Your task to perform on an android device: turn off notifications settings in the gmail app Image 0: 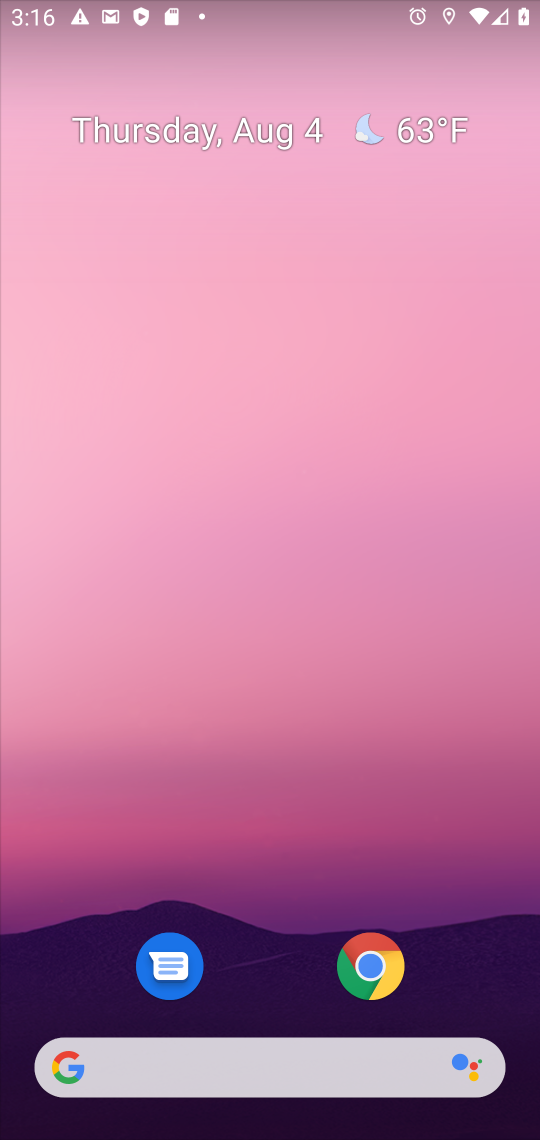
Step 0: drag from (285, 729) to (290, 202)
Your task to perform on an android device: turn off notifications settings in the gmail app Image 1: 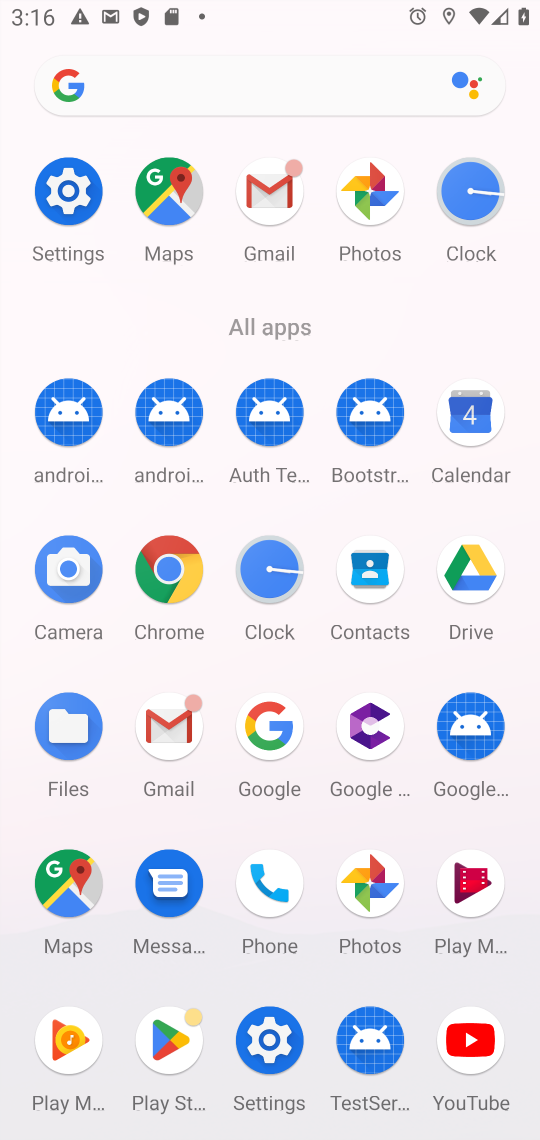
Step 1: click (275, 200)
Your task to perform on an android device: turn off notifications settings in the gmail app Image 2: 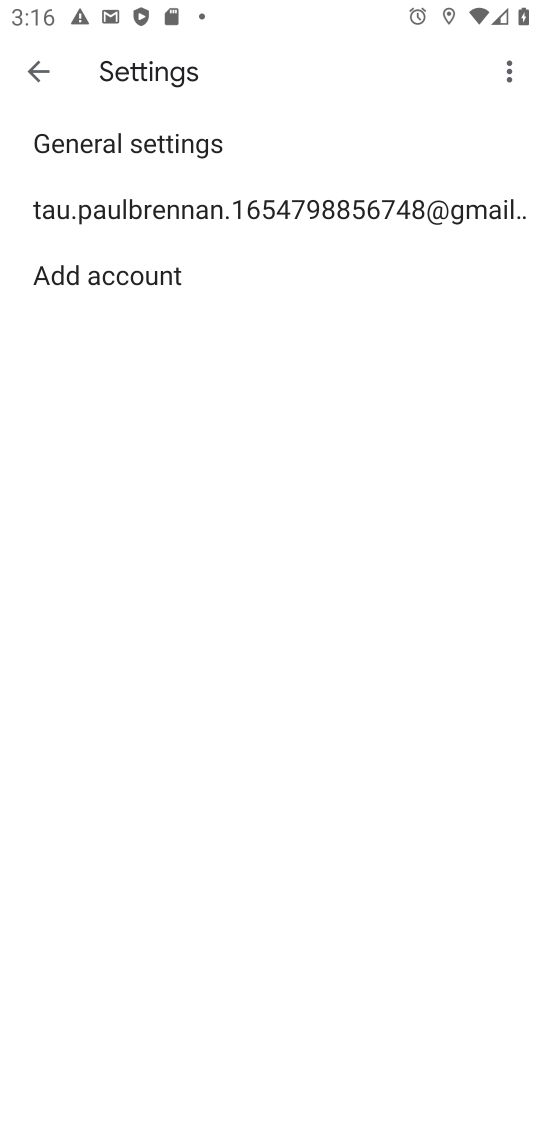
Step 2: click (183, 217)
Your task to perform on an android device: turn off notifications settings in the gmail app Image 3: 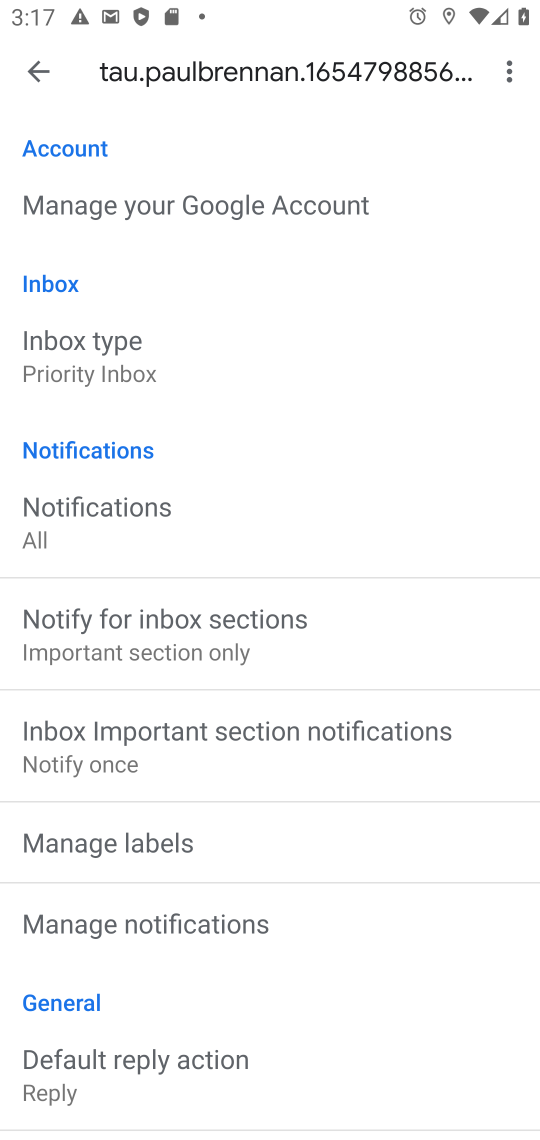
Step 3: click (173, 915)
Your task to perform on an android device: turn off notifications settings in the gmail app Image 4: 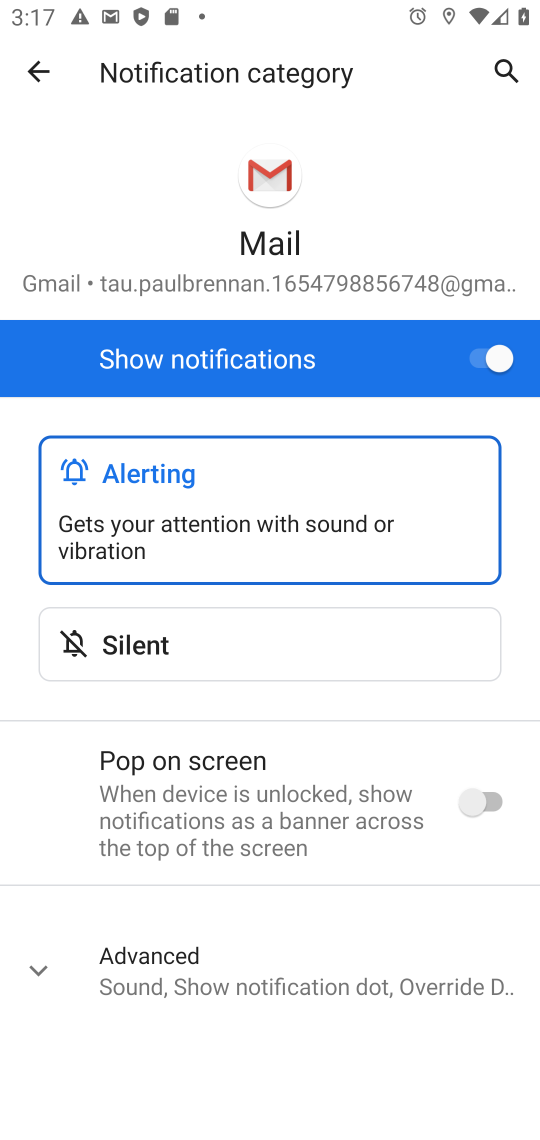
Step 4: click (491, 348)
Your task to perform on an android device: turn off notifications settings in the gmail app Image 5: 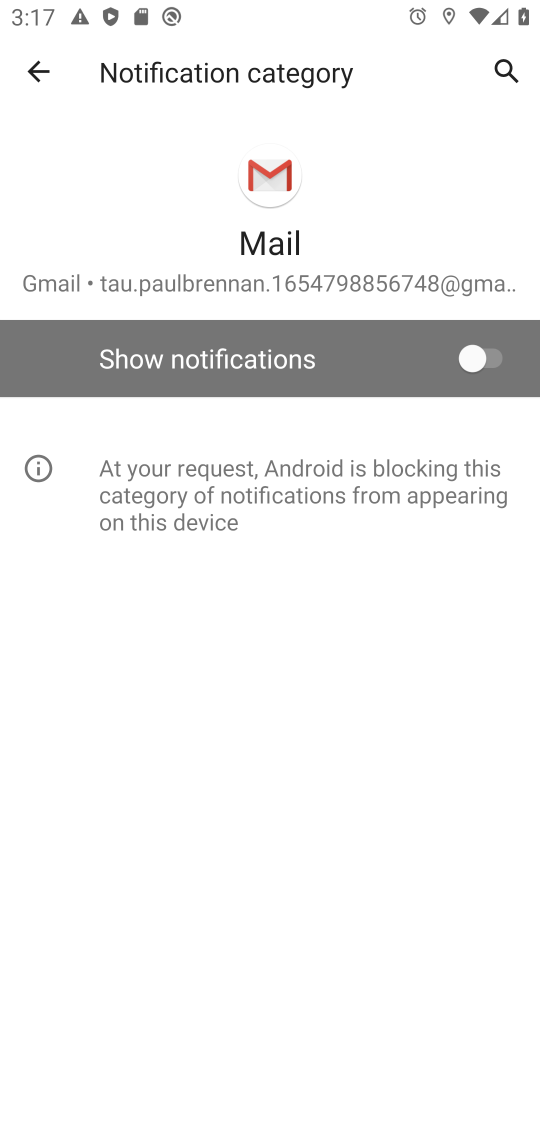
Step 5: task complete